Your task to perform on an android device: toggle improve location accuracy Image 0: 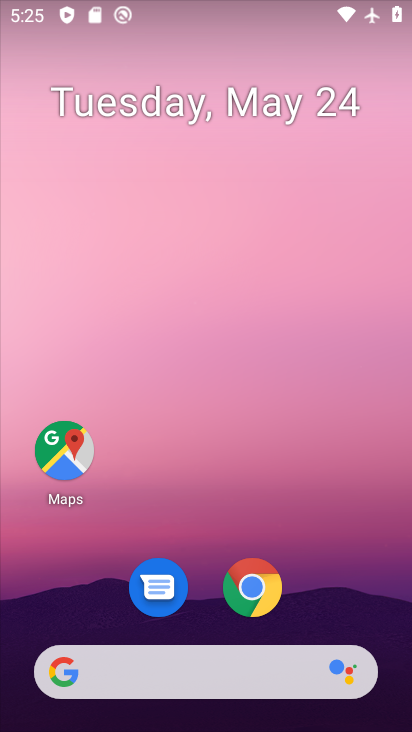
Step 0: drag from (342, 556) to (226, 9)
Your task to perform on an android device: toggle improve location accuracy Image 1: 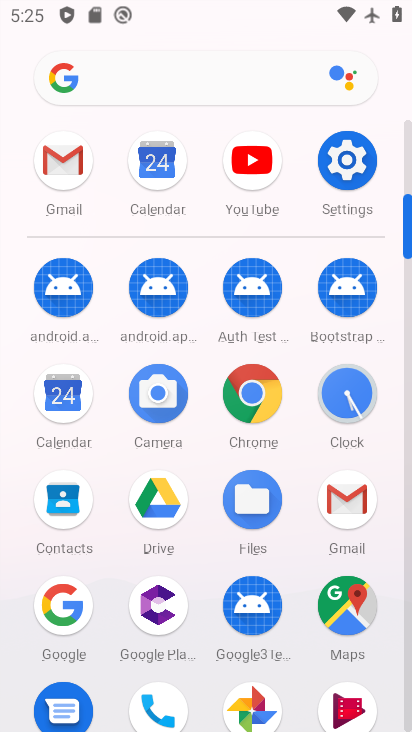
Step 1: click (347, 166)
Your task to perform on an android device: toggle improve location accuracy Image 2: 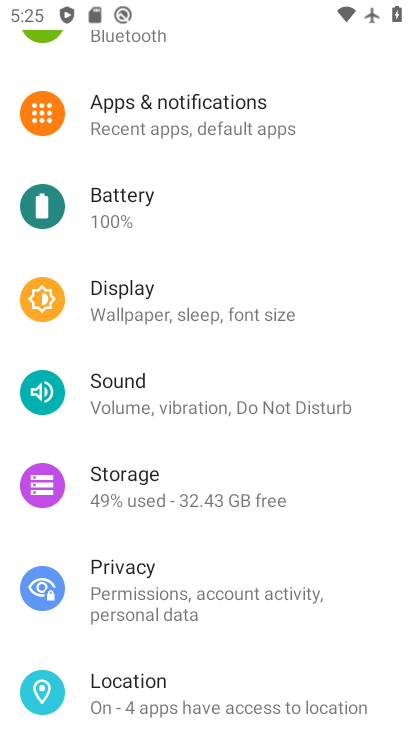
Step 2: click (249, 695)
Your task to perform on an android device: toggle improve location accuracy Image 3: 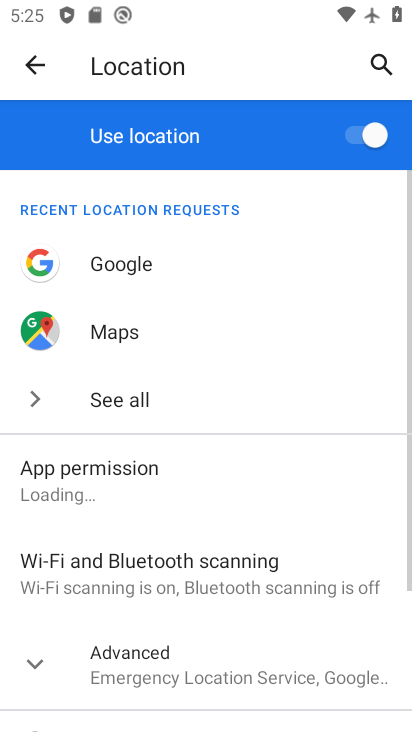
Step 3: click (221, 673)
Your task to perform on an android device: toggle improve location accuracy Image 4: 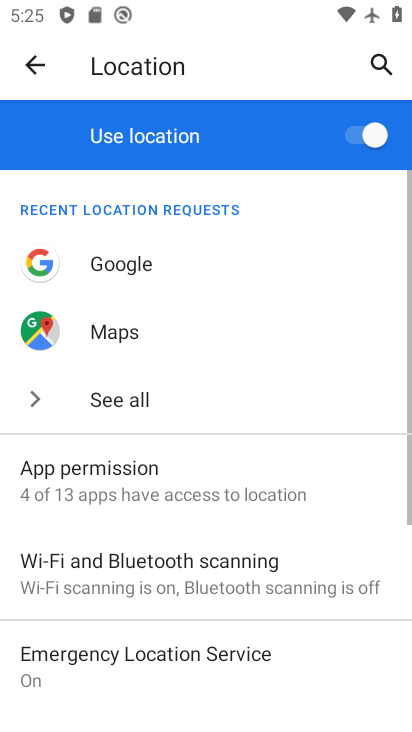
Step 4: drag from (205, 654) to (238, 250)
Your task to perform on an android device: toggle improve location accuracy Image 5: 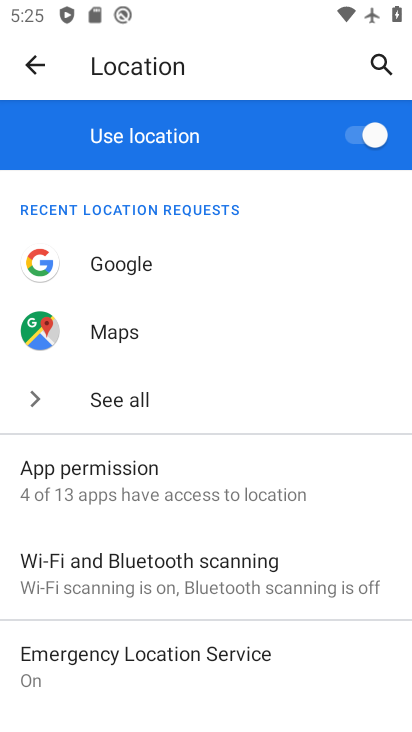
Step 5: drag from (215, 618) to (244, 262)
Your task to perform on an android device: toggle improve location accuracy Image 6: 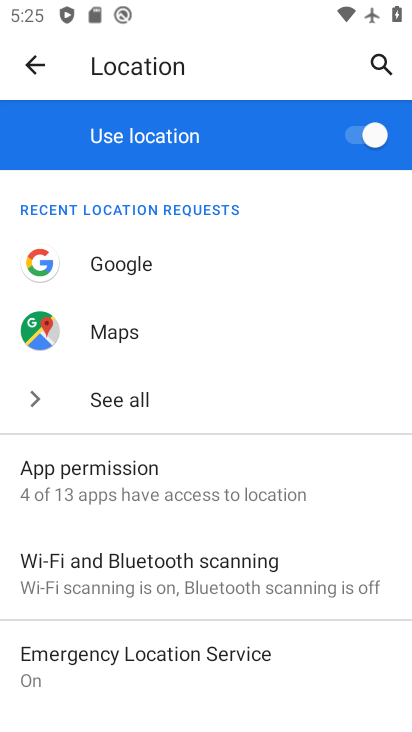
Step 6: drag from (244, 623) to (265, 356)
Your task to perform on an android device: toggle improve location accuracy Image 7: 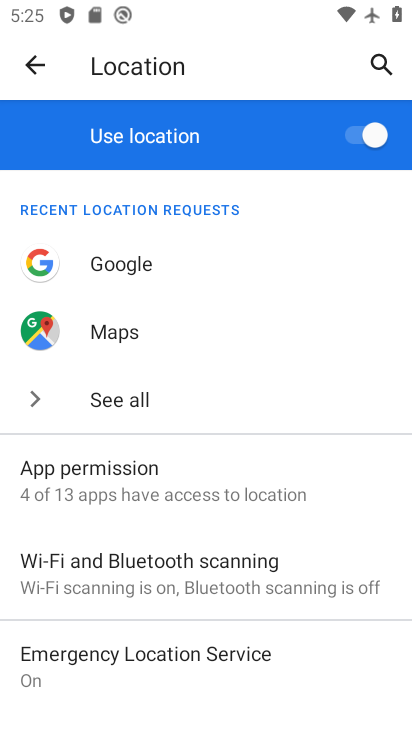
Step 7: drag from (212, 572) to (221, 270)
Your task to perform on an android device: toggle improve location accuracy Image 8: 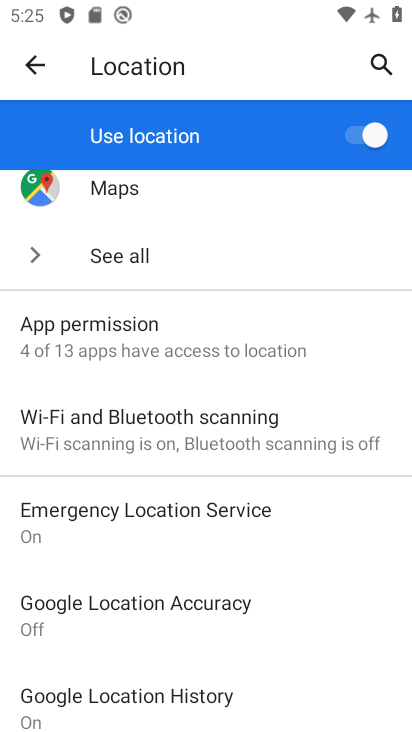
Step 8: click (216, 611)
Your task to perform on an android device: toggle improve location accuracy Image 9: 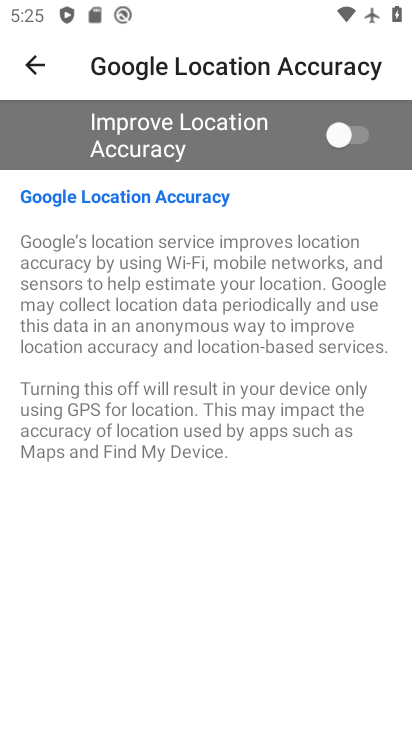
Step 9: click (359, 134)
Your task to perform on an android device: toggle improve location accuracy Image 10: 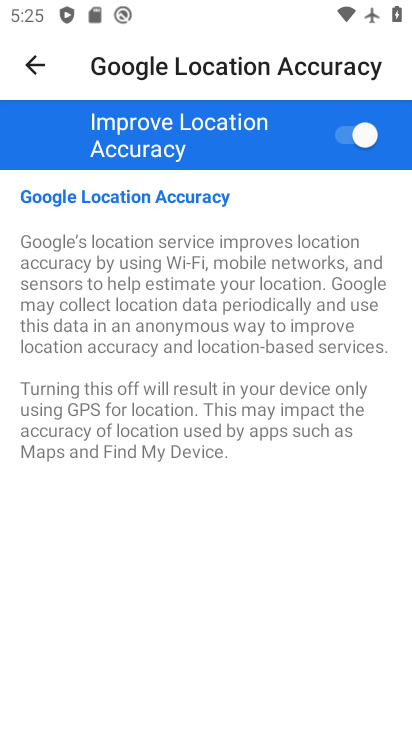
Step 10: task complete